Your task to perform on an android device: open chrome and create a bookmark for the current page Image 0: 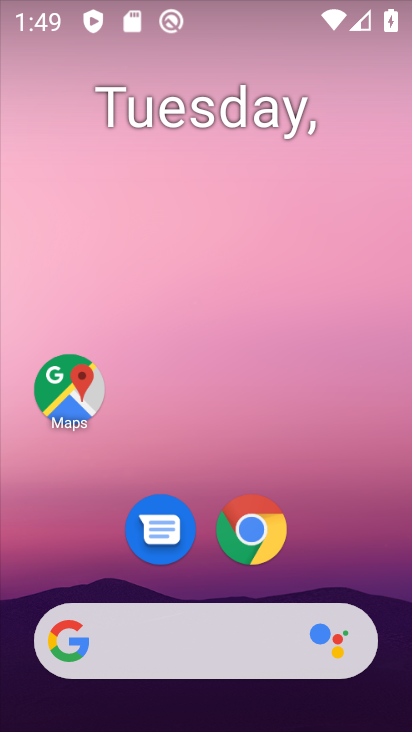
Step 0: click (245, 532)
Your task to perform on an android device: open chrome and create a bookmark for the current page Image 1: 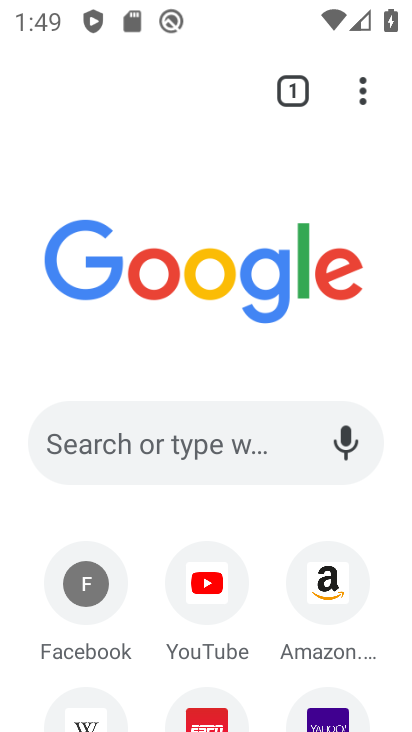
Step 1: click (357, 93)
Your task to perform on an android device: open chrome and create a bookmark for the current page Image 2: 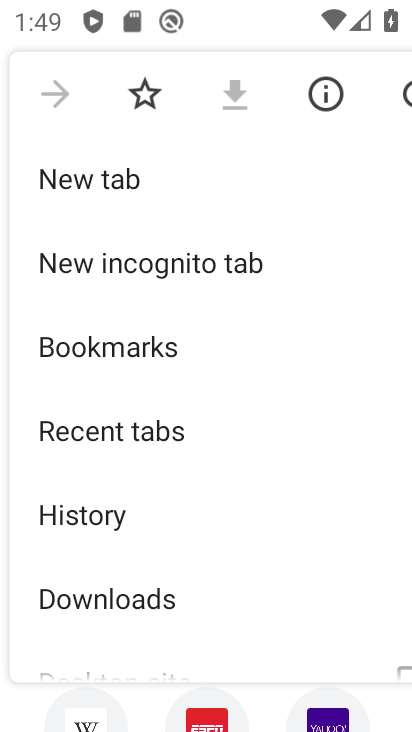
Step 2: click (162, 342)
Your task to perform on an android device: open chrome and create a bookmark for the current page Image 3: 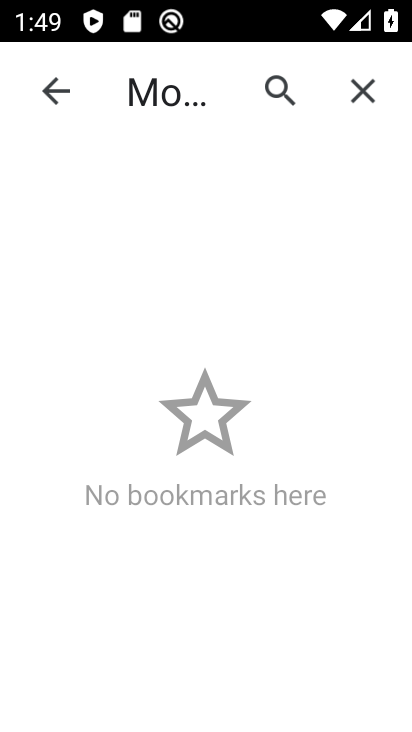
Step 3: task complete